Your task to perform on an android device: find which apps use the phone's location Image 0: 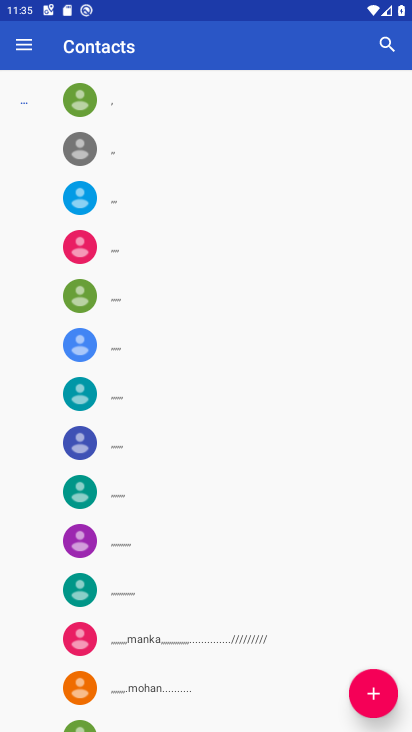
Step 0: press home button
Your task to perform on an android device: find which apps use the phone's location Image 1: 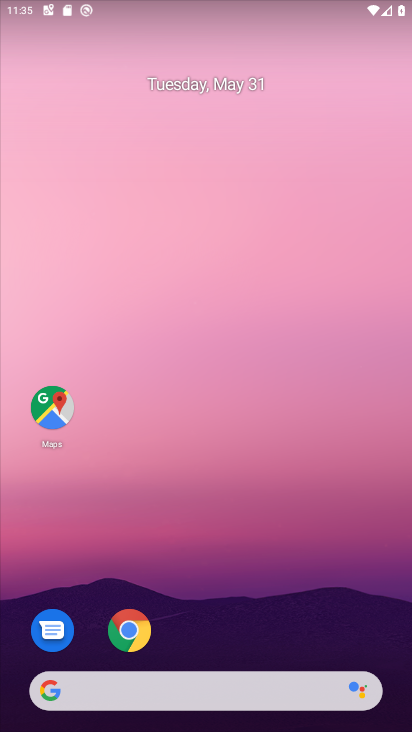
Step 1: drag from (230, 639) to (212, 284)
Your task to perform on an android device: find which apps use the phone's location Image 2: 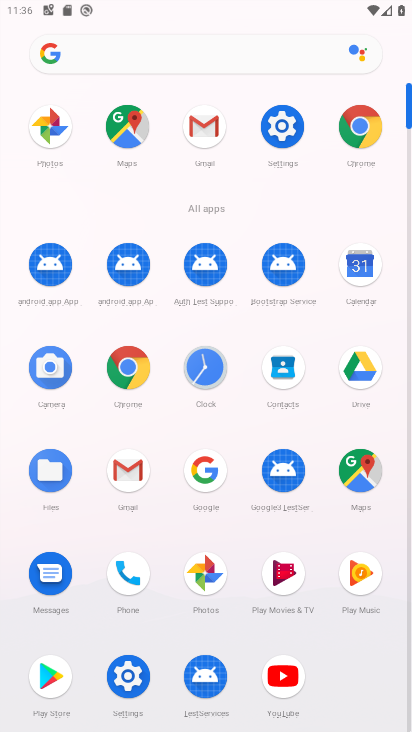
Step 2: click (288, 117)
Your task to perform on an android device: find which apps use the phone's location Image 3: 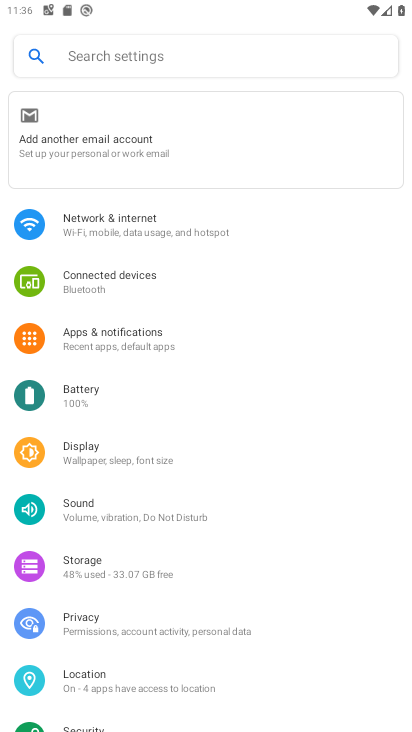
Step 3: click (146, 669)
Your task to perform on an android device: find which apps use the phone's location Image 4: 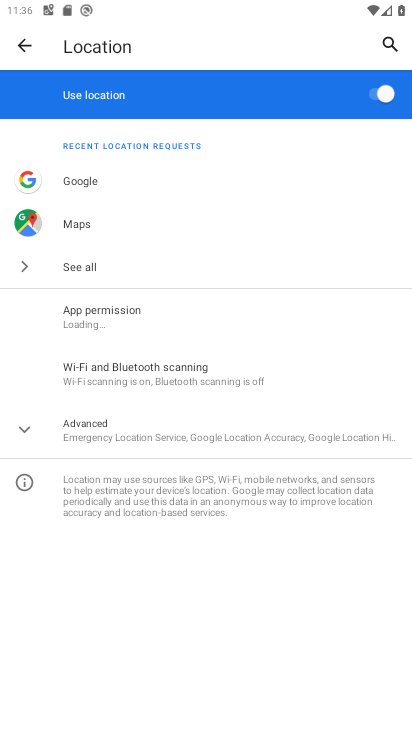
Step 4: click (148, 433)
Your task to perform on an android device: find which apps use the phone's location Image 5: 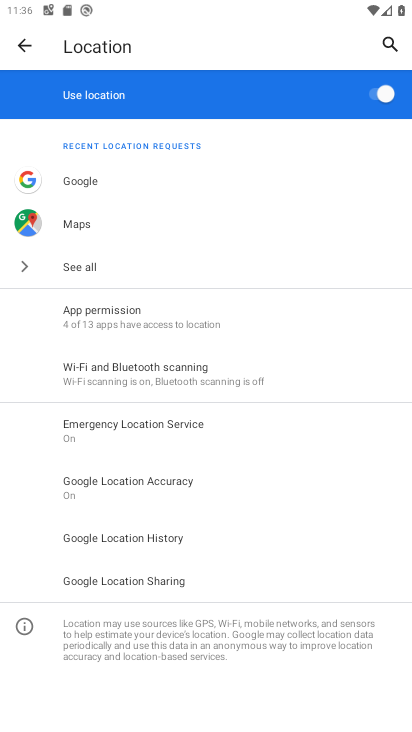
Step 5: task complete